Your task to perform on an android device: Open Youtube and go to "Your channel" Image 0: 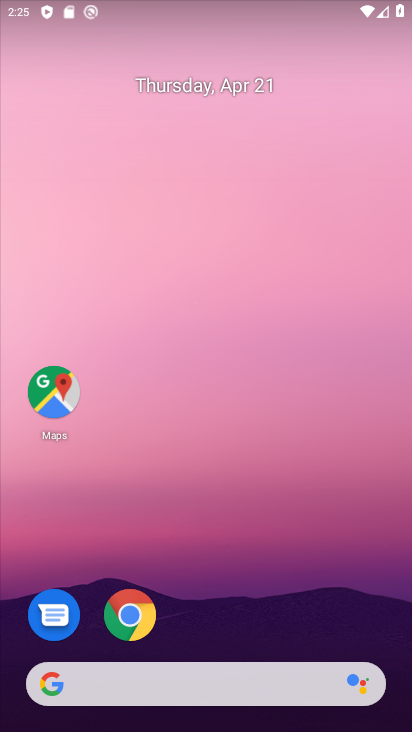
Step 0: click (135, 608)
Your task to perform on an android device: Open Youtube and go to "Your channel" Image 1: 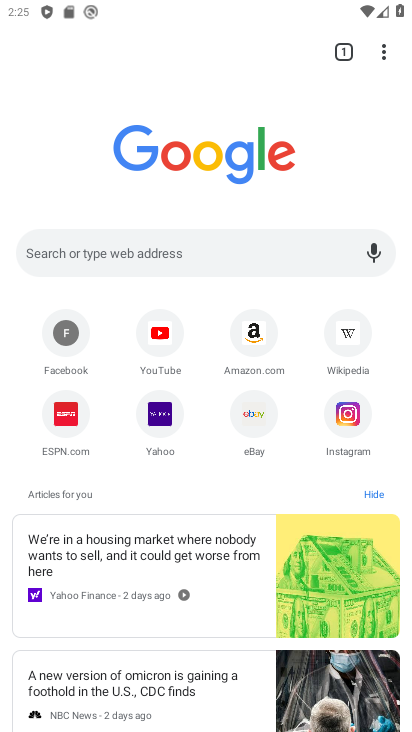
Step 1: press back button
Your task to perform on an android device: Open Youtube and go to "Your channel" Image 2: 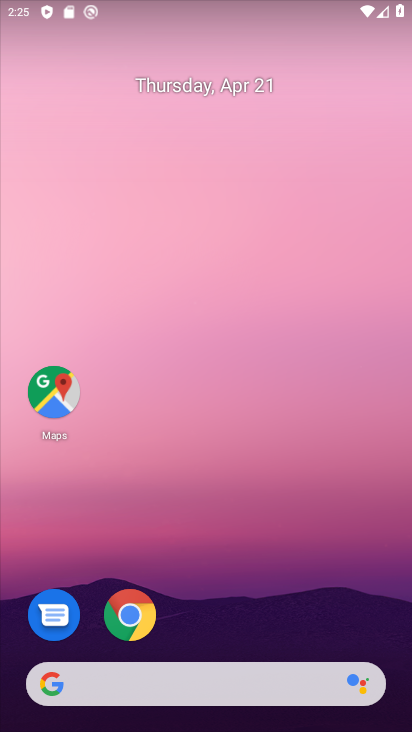
Step 2: drag from (232, 566) to (275, 11)
Your task to perform on an android device: Open Youtube and go to "Your channel" Image 3: 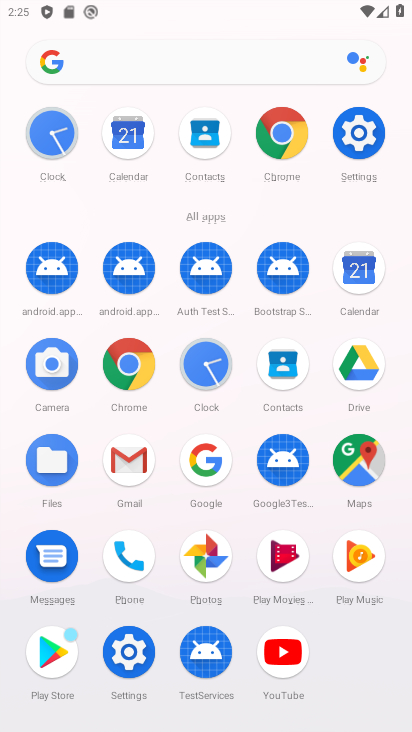
Step 3: click (282, 654)
Your task to perform on an android device: Open Youtube and go to "Your channel" Image 4: 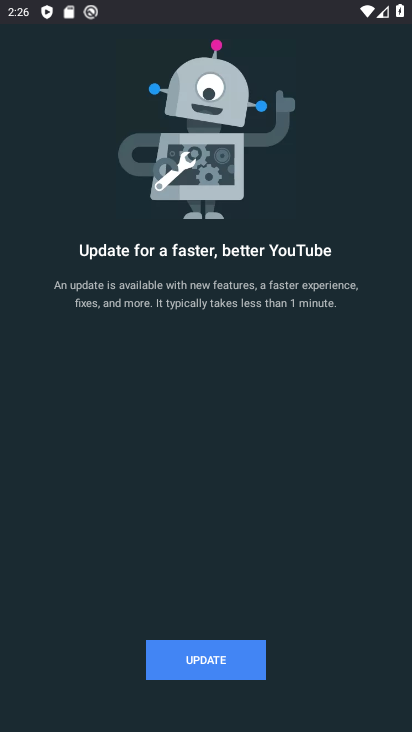
Step 4: click (204, 656)
Your task to perform on an android device: Open Youtube and go to "Your channel" Image 5: 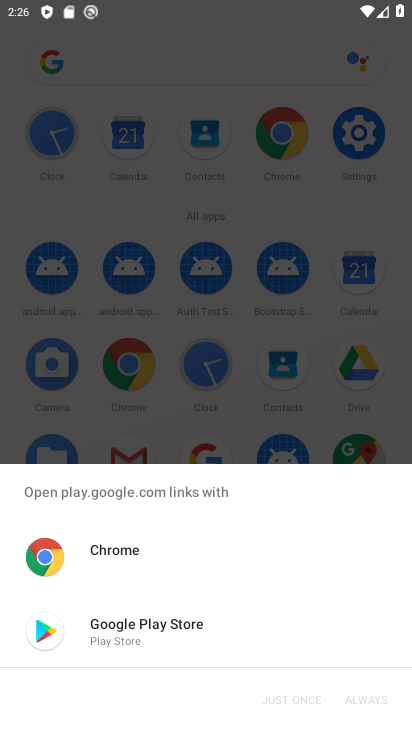
Step 5: click (162, 631)
Your task to perform on an android device: Open Youtube and go to "Your channel" Image 6: 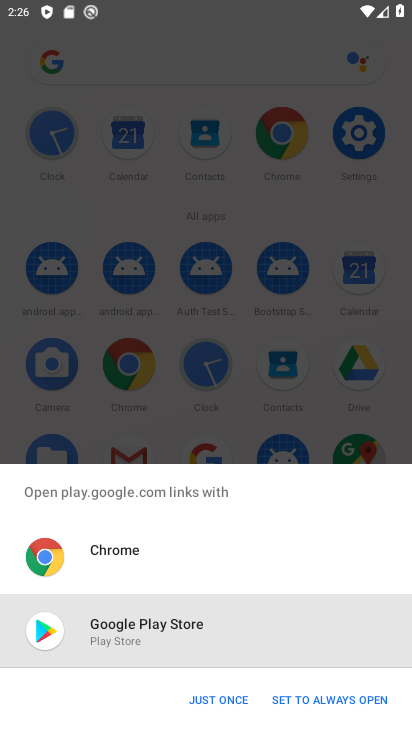
Step 6: click (208, 700)
Your task to perform on an android device: Open Youtube and go to "Your channel" Image 7: 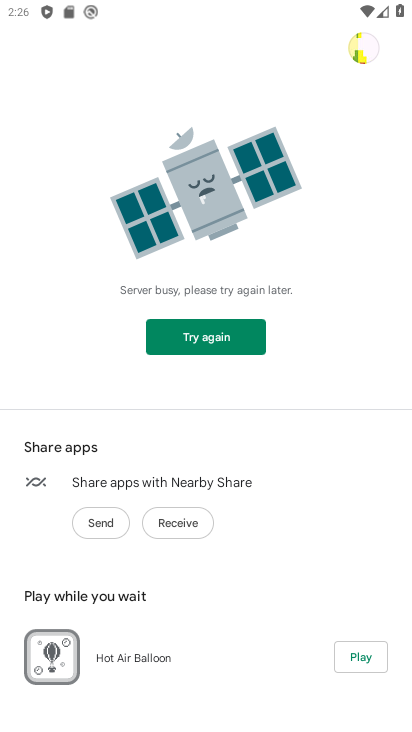
Step 7: click (218, 335)
Your task to perform on an android device: Open Youtube and go to "Your channel" Image 8: 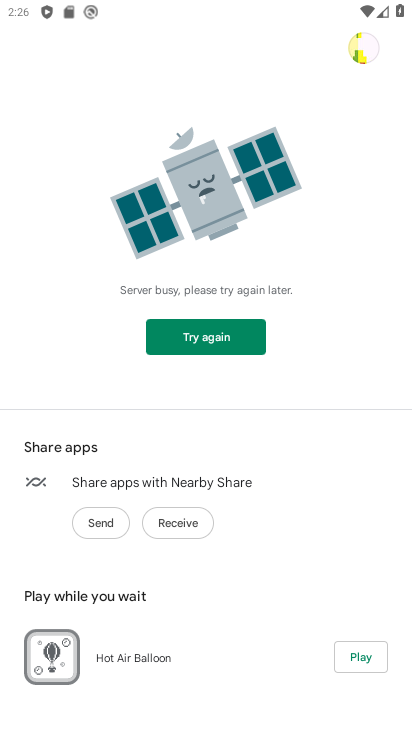
Step 8: click (197, 343)
Your task to perform on an android device: Open Youtube and go to "Your channel" Image 9: 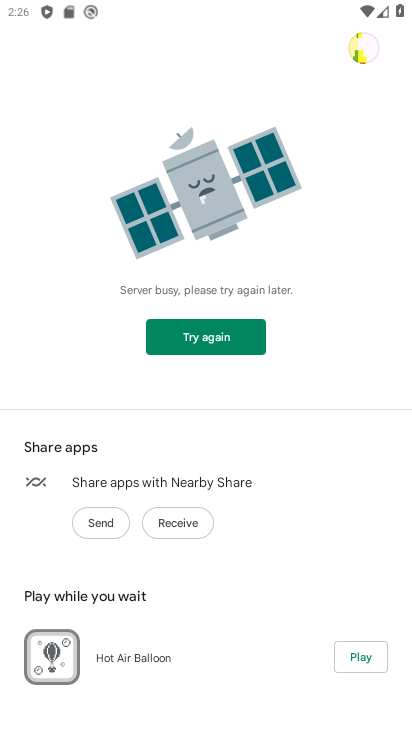
Step 9: task complete